Your task to perform on an android device: open app "Microsoft Authenticator" (install if not already installed), go to login, and select forgot password Image 0: 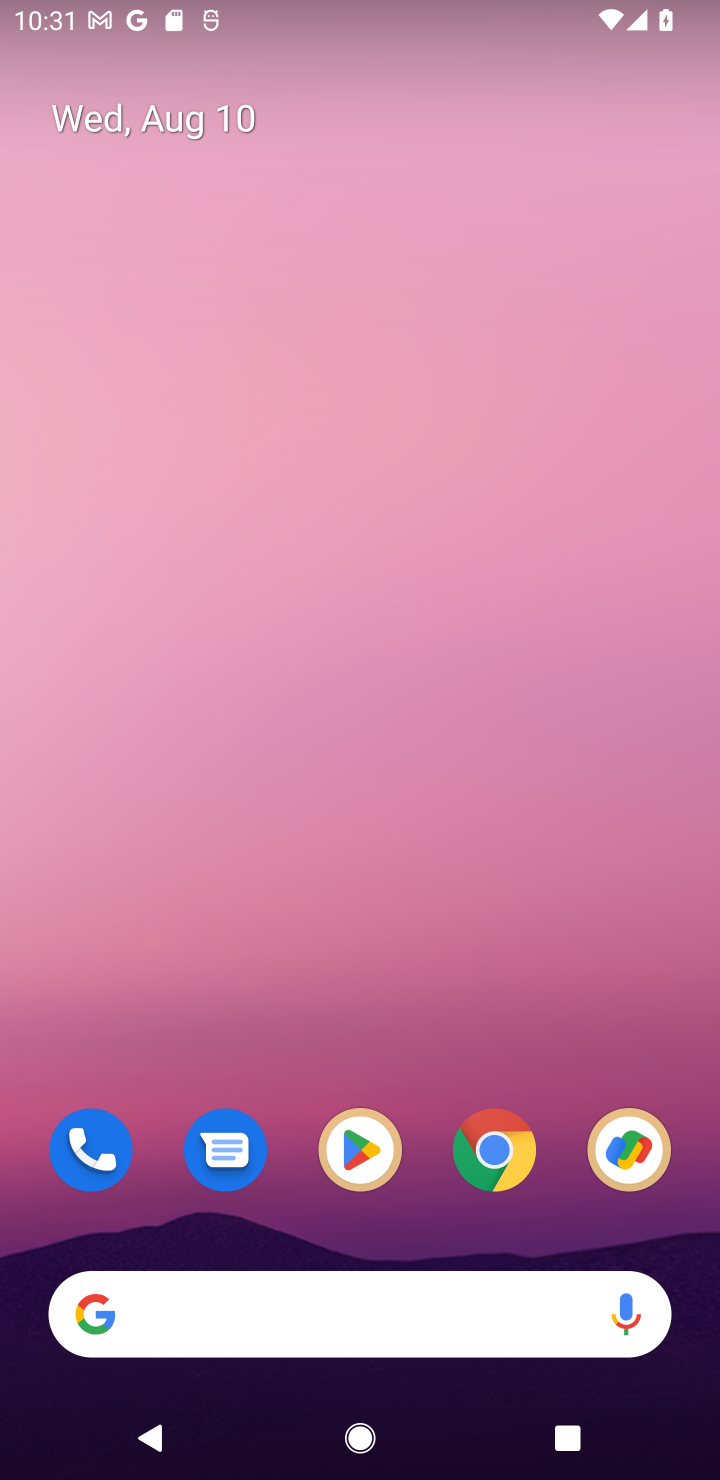
Step 0: click (373, 1142)
Your task to perform on an android device: open app "Microsoft Authenticator" (install if not already installed), go to login, and select forgot password Image 1: 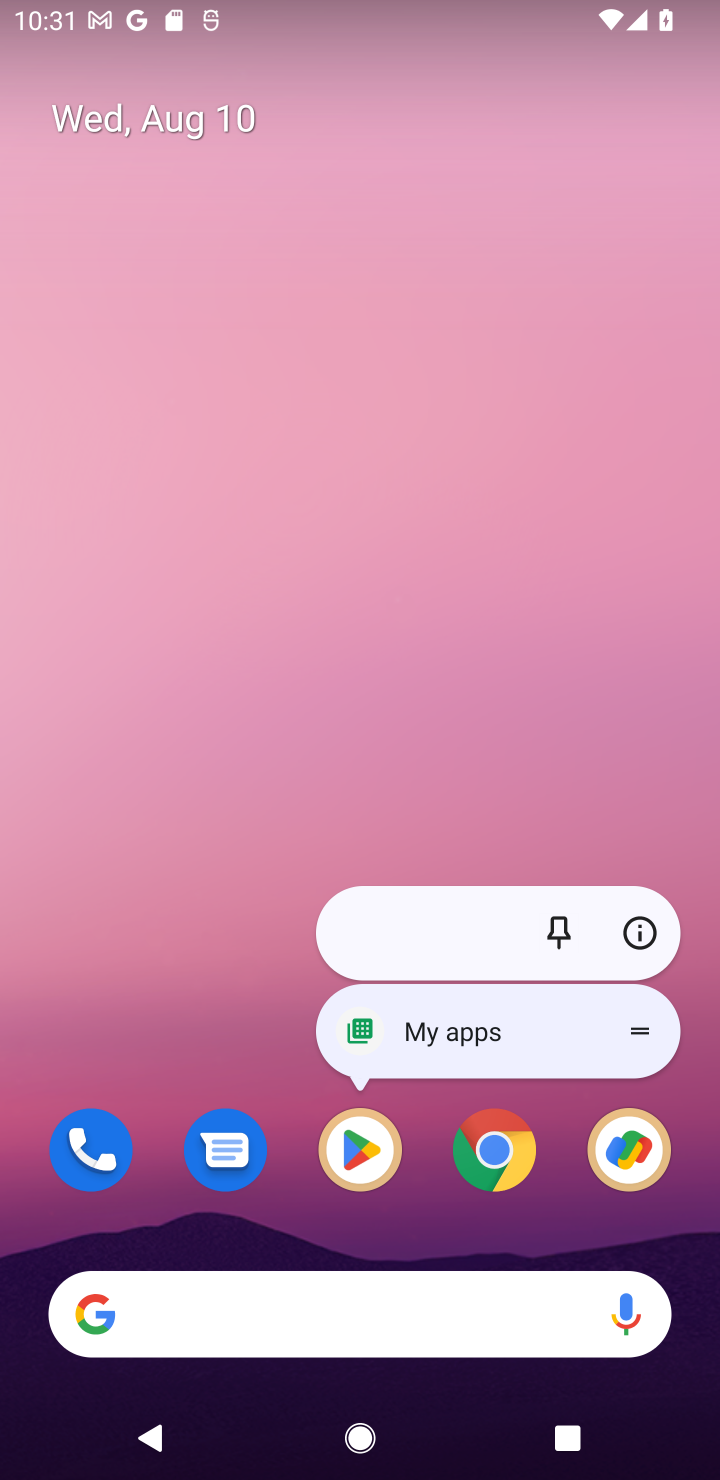
Step 1: click (374, 1145)
Your task to perform on an android device: open app "Microsoft Authenticator" (install if not already installed), go to login, and select forgot password Image 2: 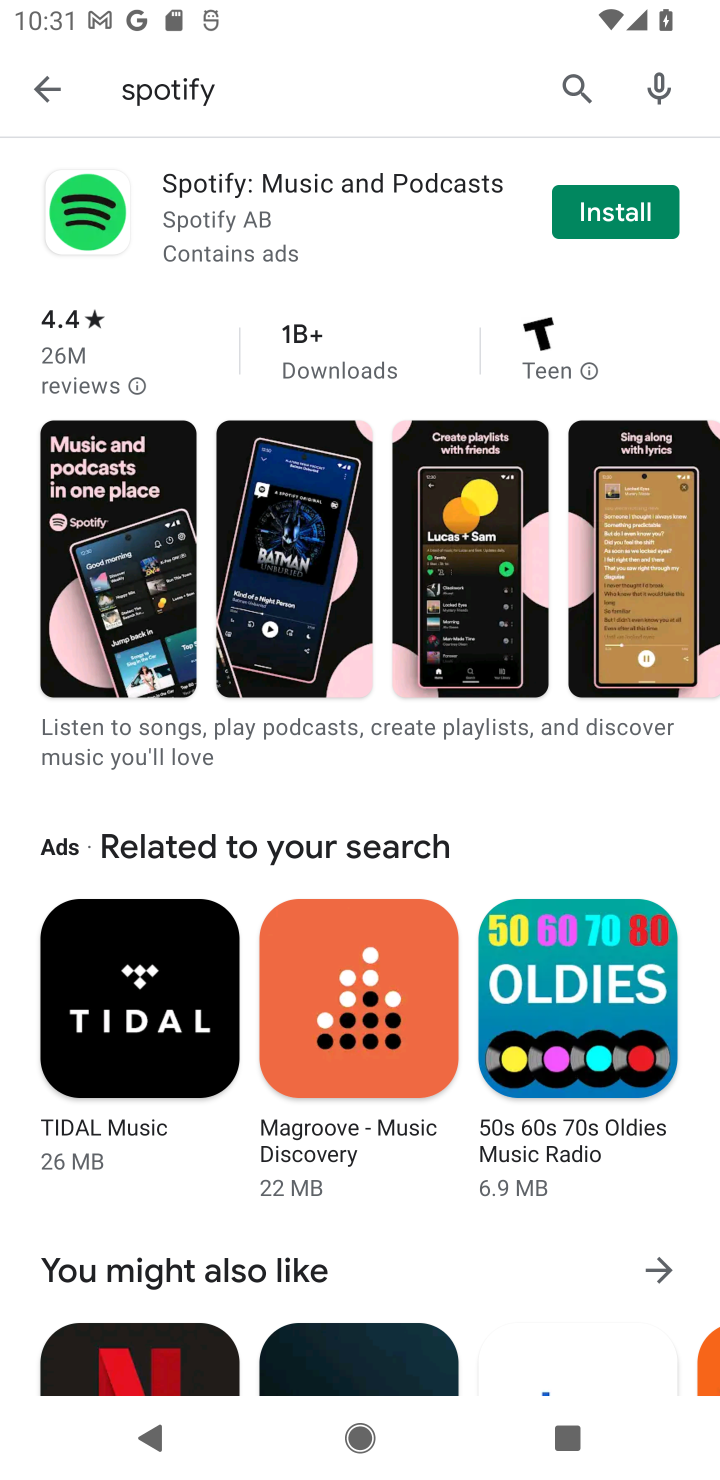
Step 2: click (562, 78)
Your task to perform on an android device: open app "Microsoft Authenticator" (install if not already installed), go to login, and select forgot password Image 3: 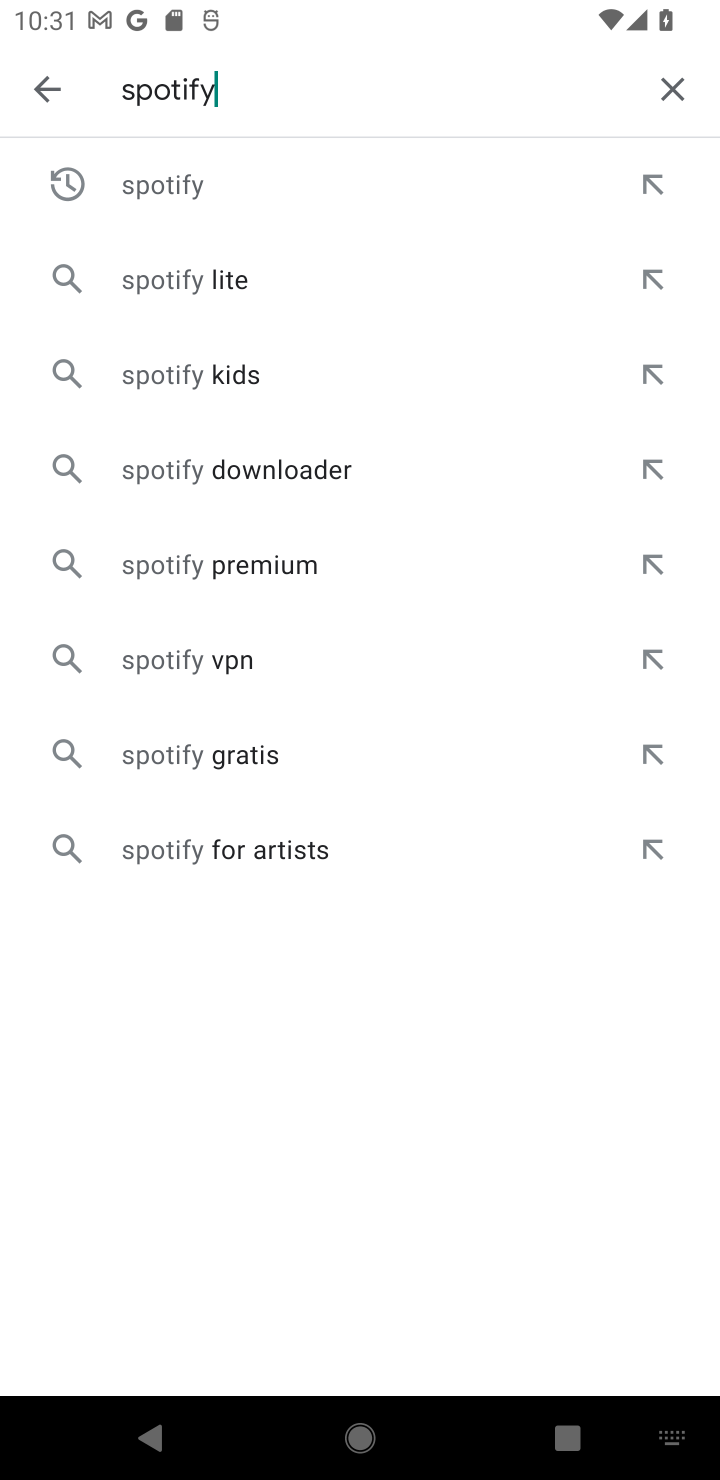
Step 3: click (677, 80)
Your task to perform on an android device: open app "Microsoft Authenticator" (install if not already installed), go to login, and select forgot password Image 4: 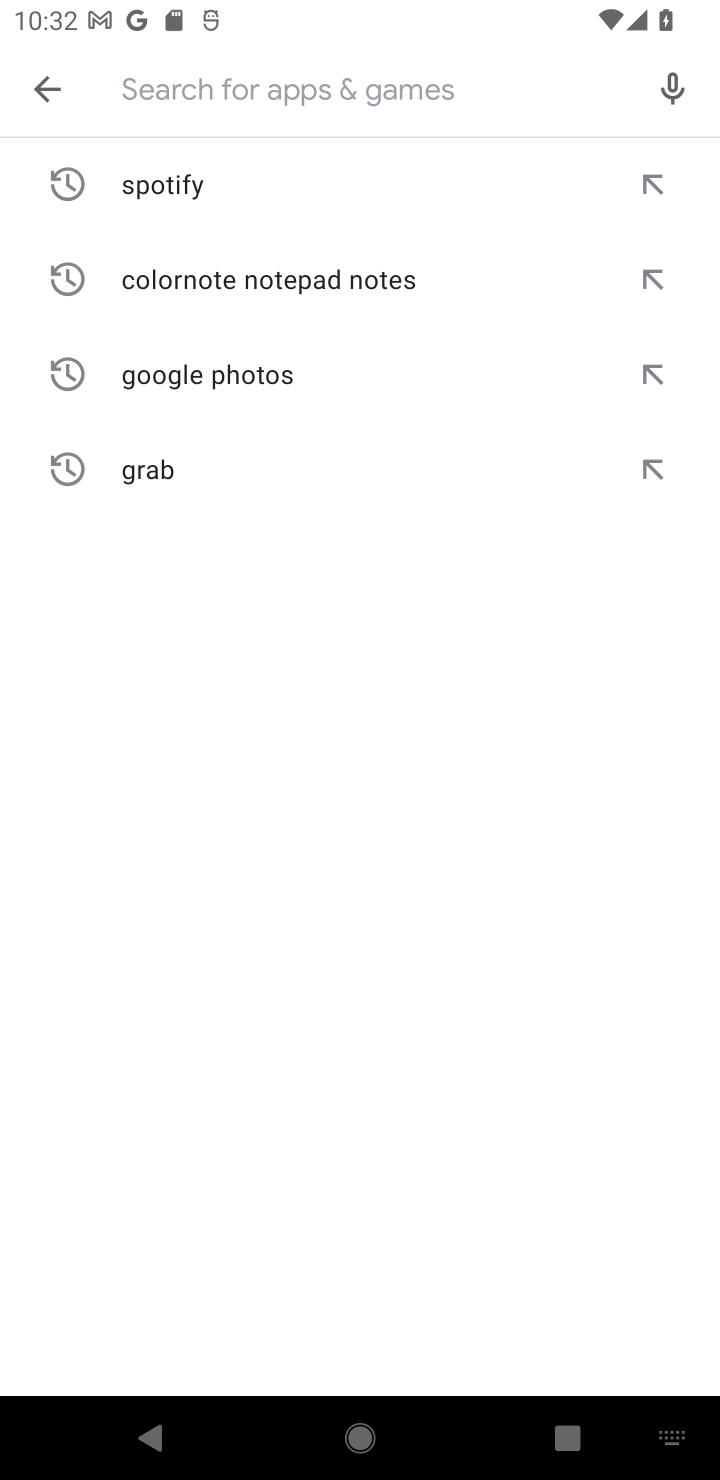
Step 4: type "Microsoft Authenticator"
Your task to perform on an android device: open app "Microsoft Authenticator" (install if not already installed), go to login, and select forgot password Image 5: 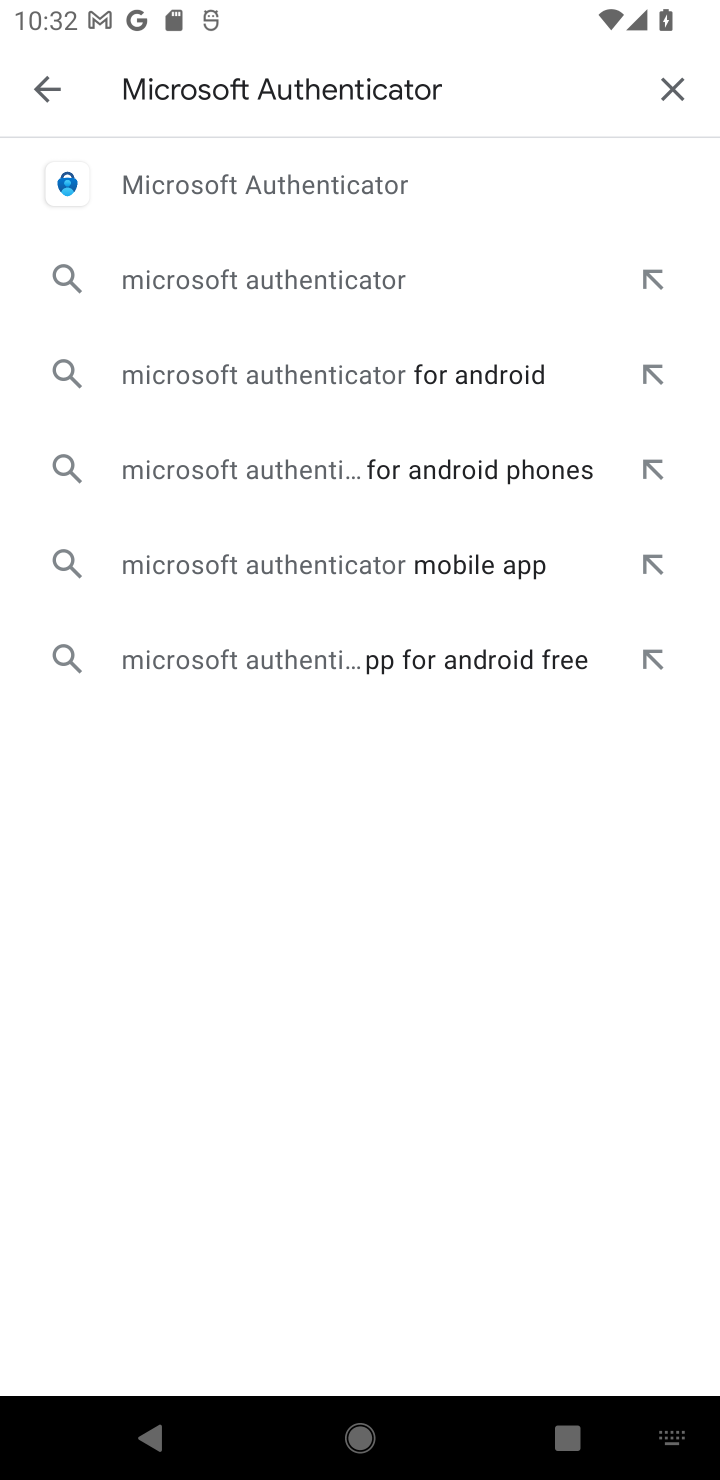
Step 5: click (268, 184)
Your task to perform on an android device: open app "Microsoft Authenticator" (install if not already installed), go to login, and select forgot password Image 6: 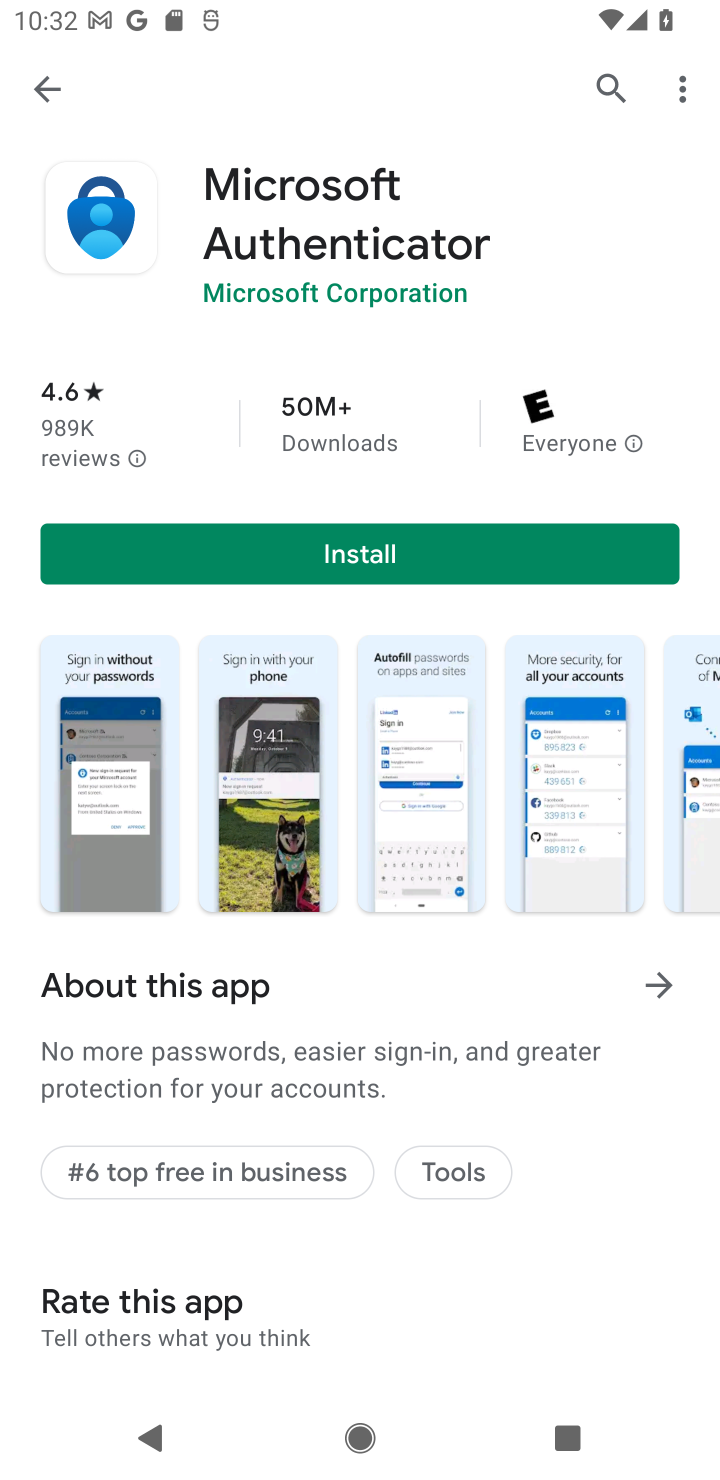
Step 6: click (318, 546)
Your task to perform on an android device: open app "Microsoft Authenticator" (install if not already installed), go to login, and select forgot password Image 7: 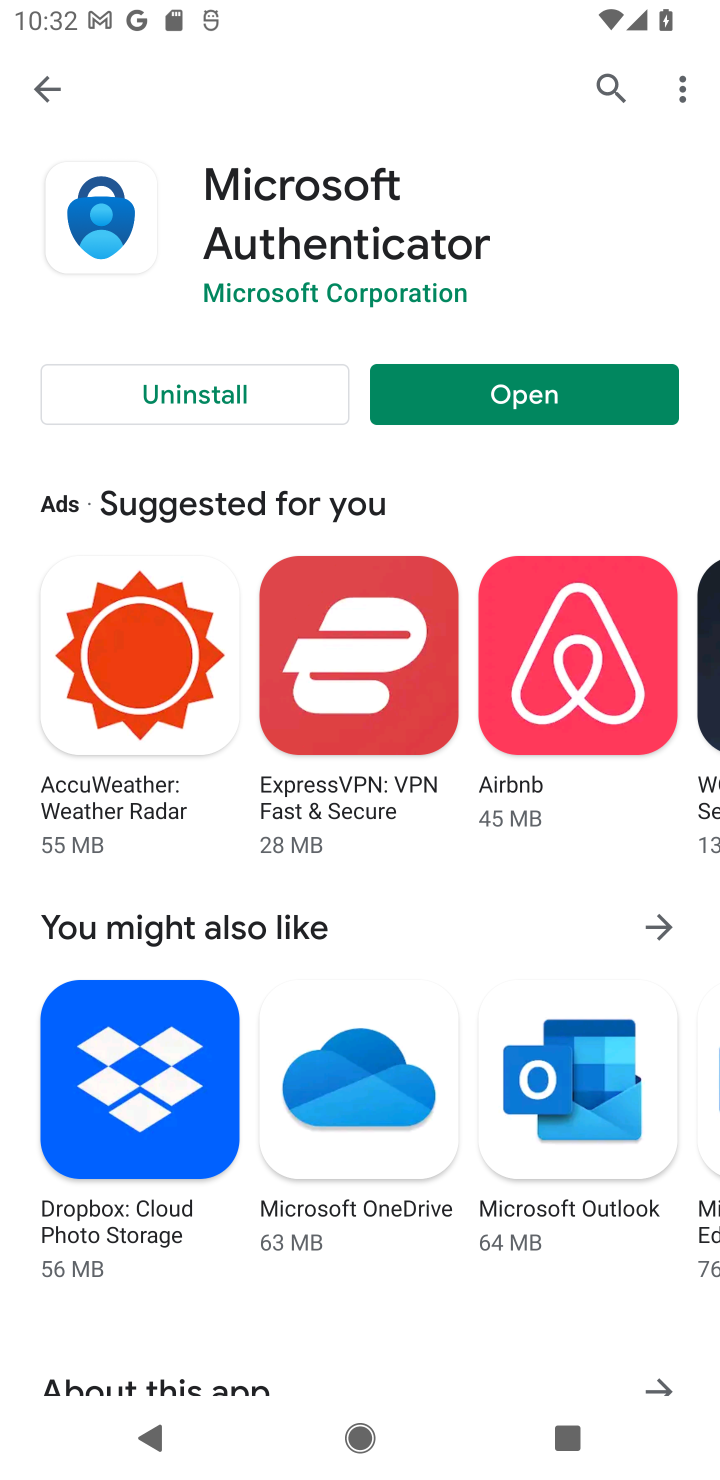
Step 7: click (501, 387)
Your task to perform on an android device: open app "Microsoft Authenticator" (install if not already installed), go to login, and select forgot password Image 8: 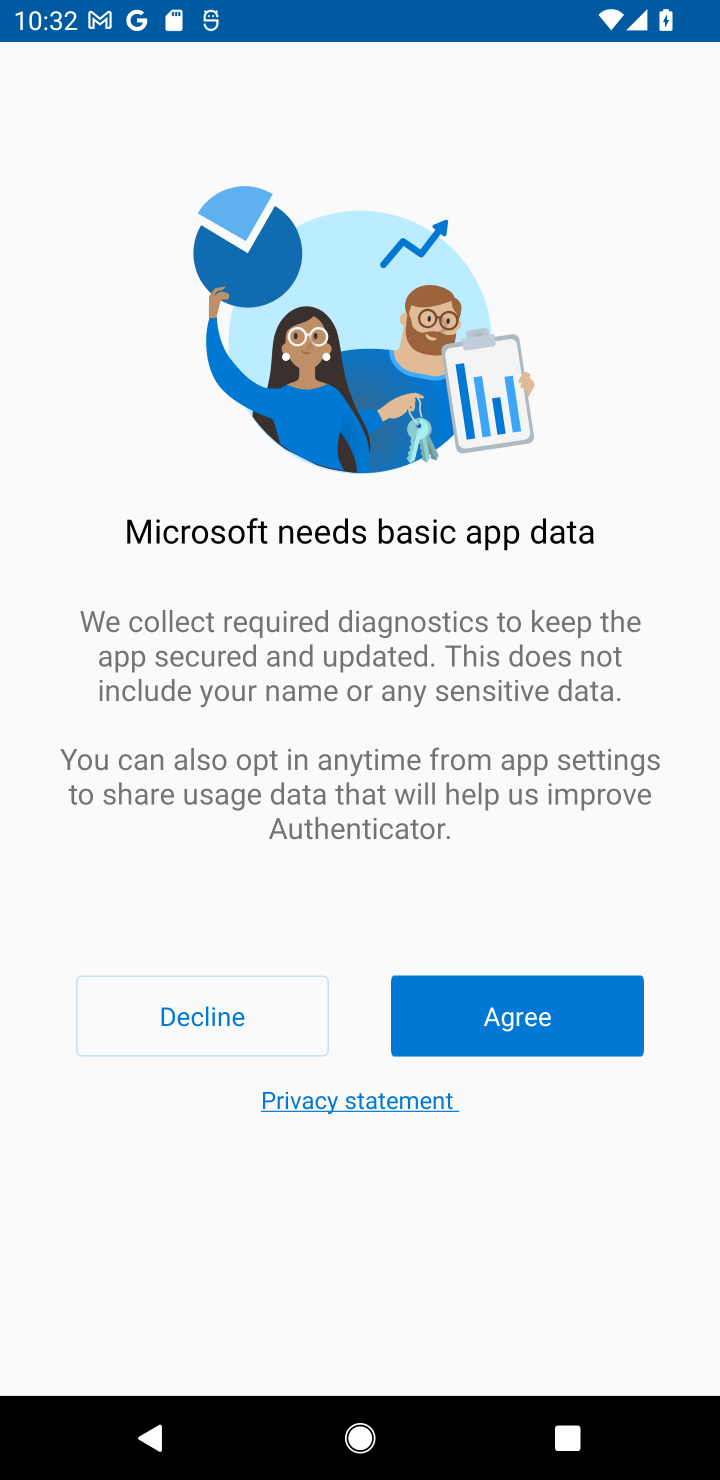
Step 8: task complete